Your task to perform on an android device: Open location settings Image 0: 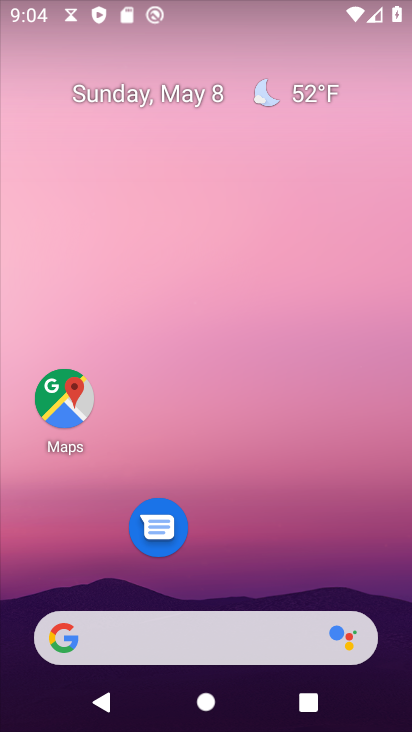
Step 0: drag from (276, 561) to (230, 89)
Your task to perform on an android device: Open location settings Image 1: 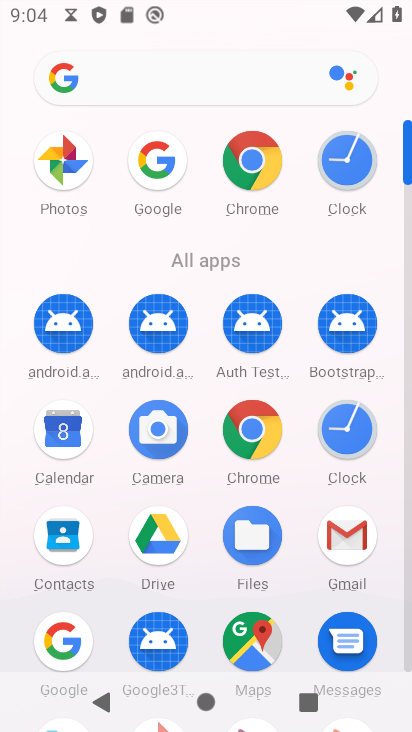
Step 1: drag from (201, 554) to (200, 426)
Your task to perform on an android device: Open location settings Image 2: 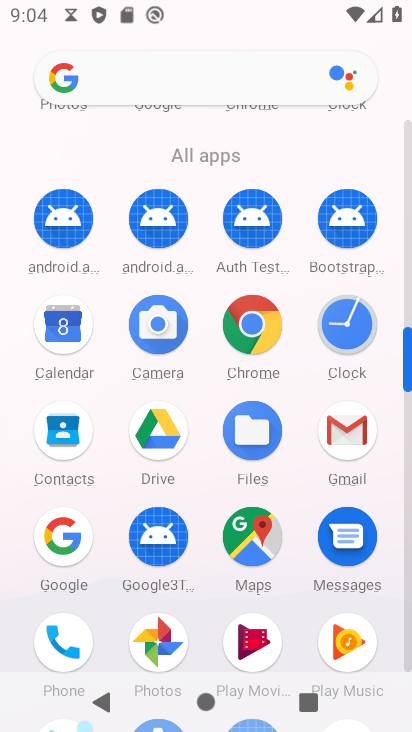
Step 2: drag from (202, 494) to (210, 352)
Your task to perform on an android device: Open location settings Image 3: 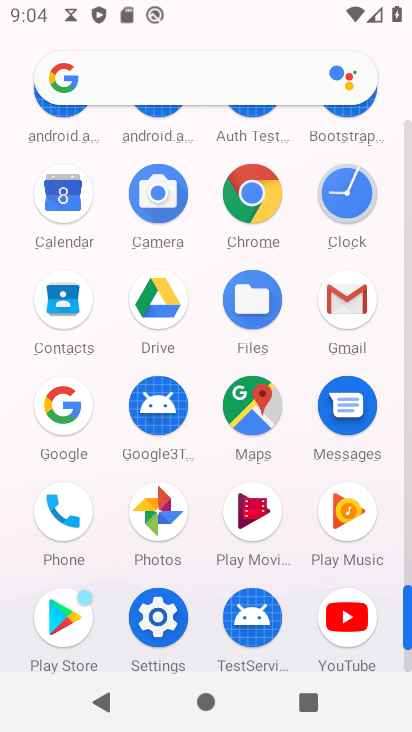
Step 3: click (155, 617)
Your task to perform on an android device: Open location settings Image 4: 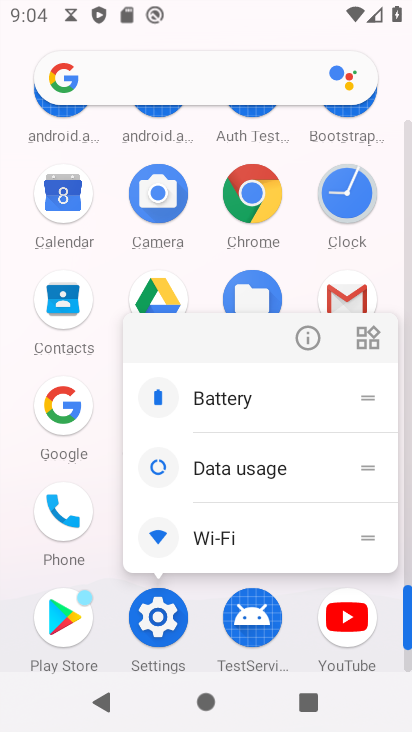
Step 4: click (157, 618)
Your task to perform on an android device: Open location settings Image 5: 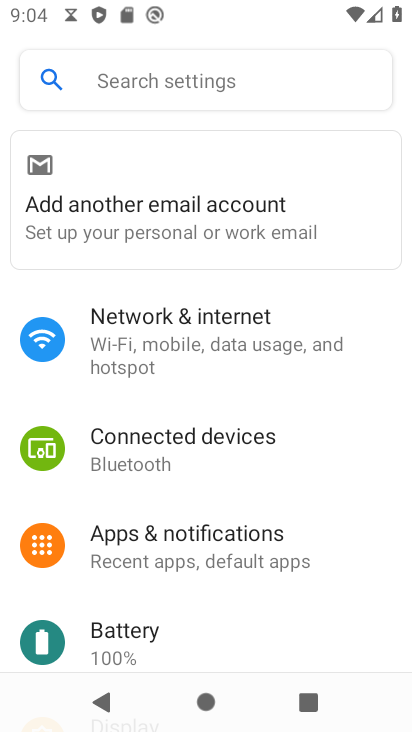
Step 5: drag from (219, 578) to (283, 454)
Your task to perform on an android device: Open location settings Image 6: 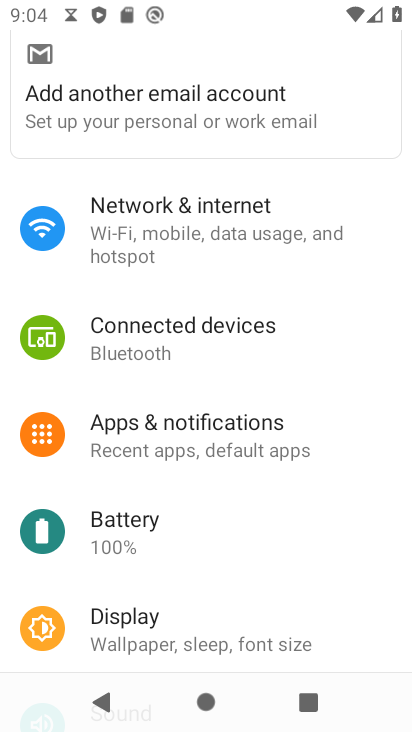
Step 6: drag from (199, 607) to (266, 428)
Your task to perform on an android device: Open location settings Image 7: 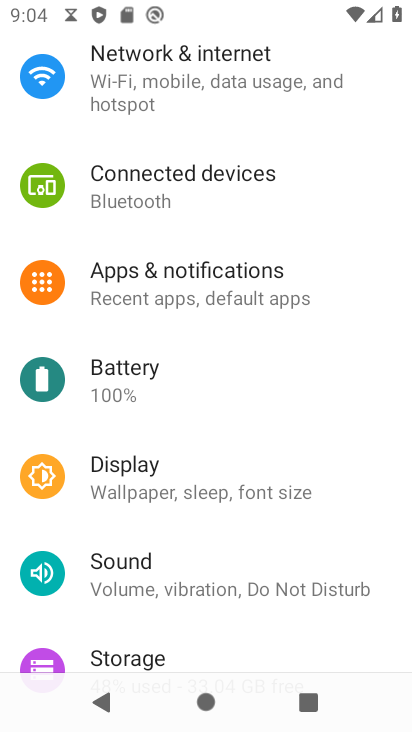
Step 7: drag from (196, 548) to (283, 406)
Your task to perform on an android device: Open location settings Image 8: 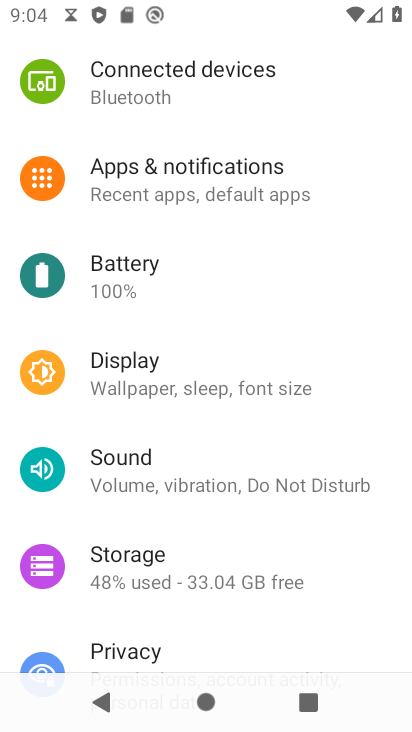
Step 8: drag from (210, 553) to (244, 420)
Your task to perform on an android device: Open location settings Image 9: 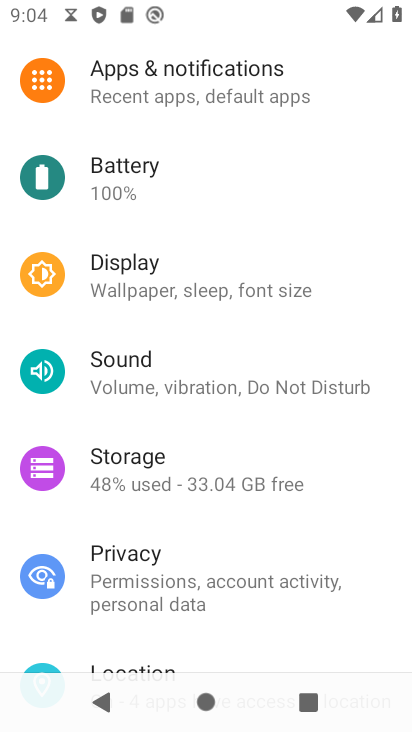
Step 9: drag from (178, 542) to (288, 392)
Your task to perform on an android device: Open location settings Image 10: 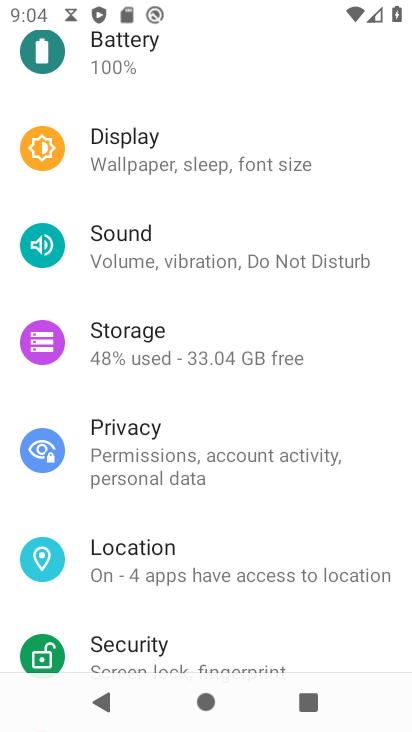
Step 10: drag from (195, 528) to (277, 404)
Your task to perform on an android device: Open location settings Image 11: 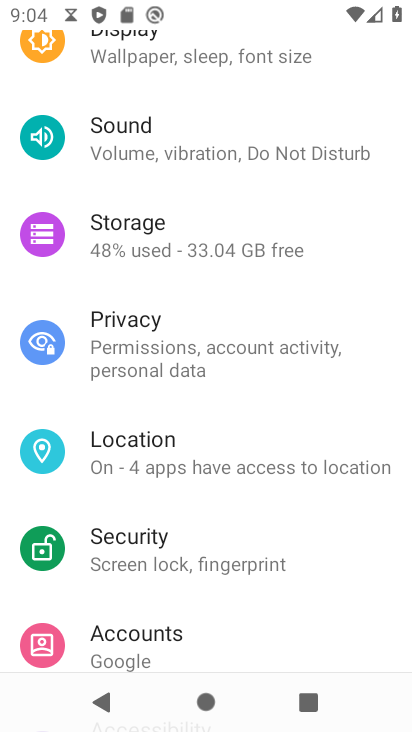
Step 11: click (160, 438)
Your task to perform on an android device: Open location settings Image 12: 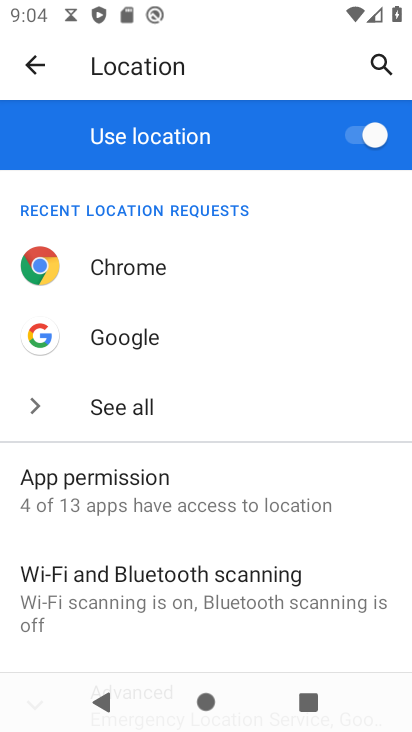
Step 12: task complete